Your task to perform on an android device: see tabs open on other devices in the chrome app Image 0: 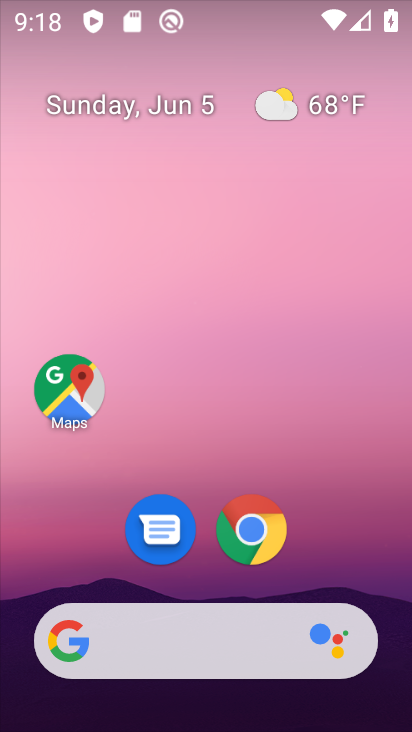
Step 0: drag from (252, 701) to (201, 635)
Your task to perform on an android device: see tabs open on other devices in the chrome app Image 1: 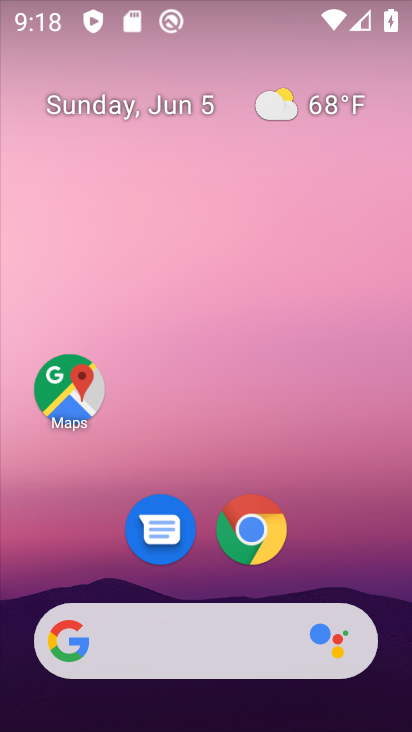
Step 1: click (239, 510)
Your task to perform on an android device: see tabs open on other devices in the chrome app Image 2: 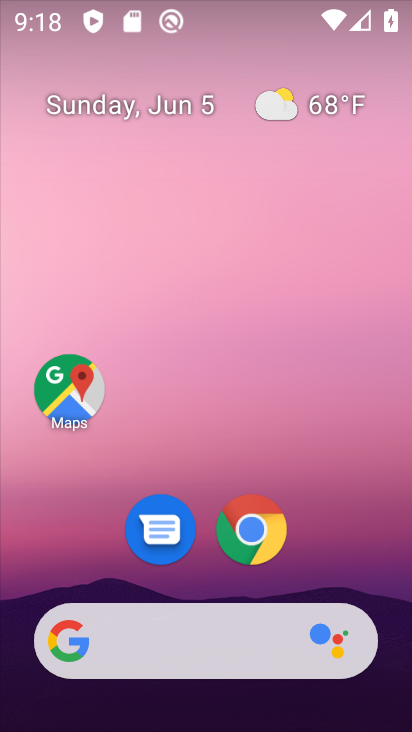
Step 2: click (239, 510)
Your task to perform on an android device: see tabs open on other devices in the chrome app Image 3: 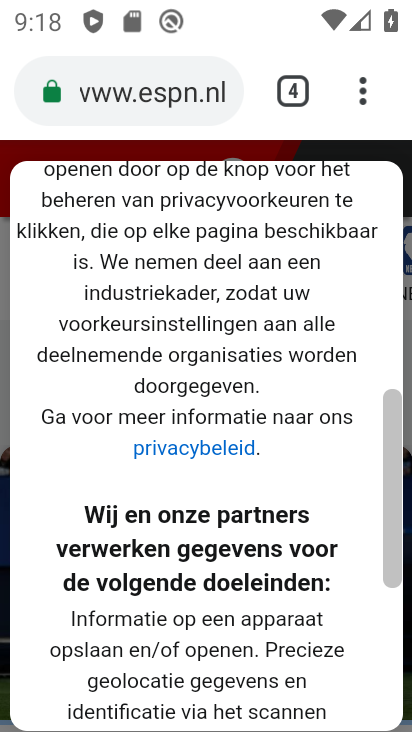
Step 3: click (361, 92)
Your task to perform on an android device: see tabs open on other devices in the chrome app Image 4: 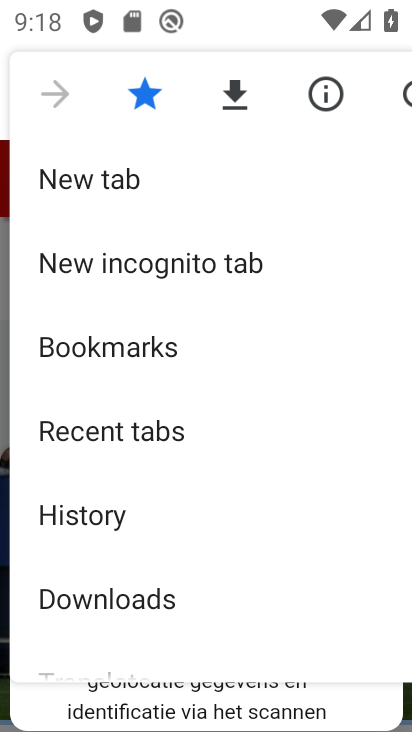
Step 4: click (208, 436)
Your task to perform on an android device: see tabs open on other devices in the chrome app Image 5: 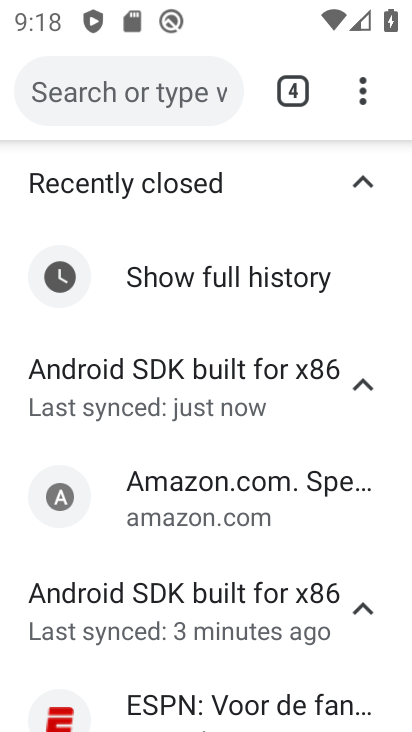
Step 5: task complete